Your task to perform on an android device: turn notification dots on Image 0: 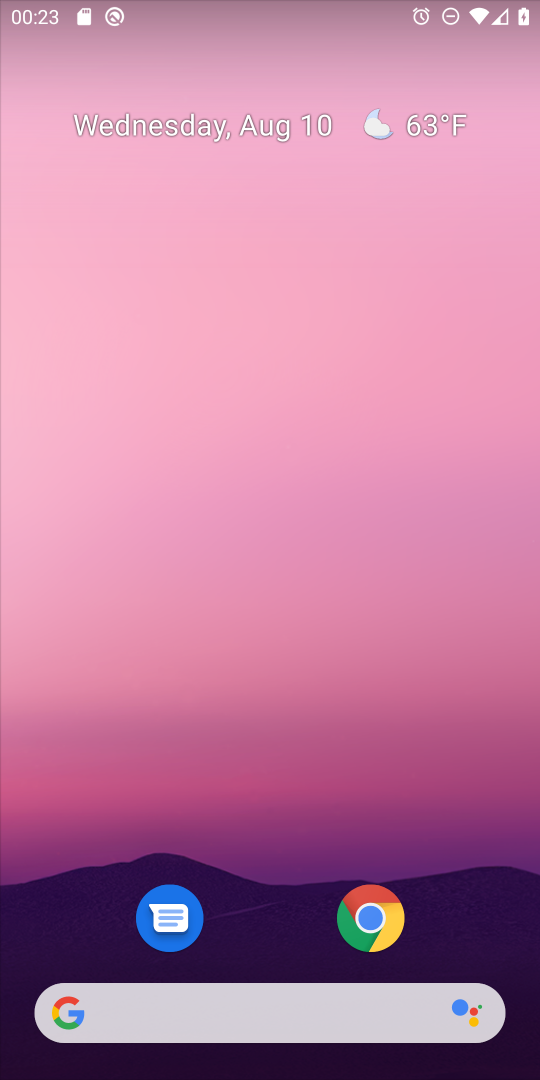
Step 0: drag from (268, 891) to (305, 135)
Your task to perform on an android device: turn notification dots on Image 1: 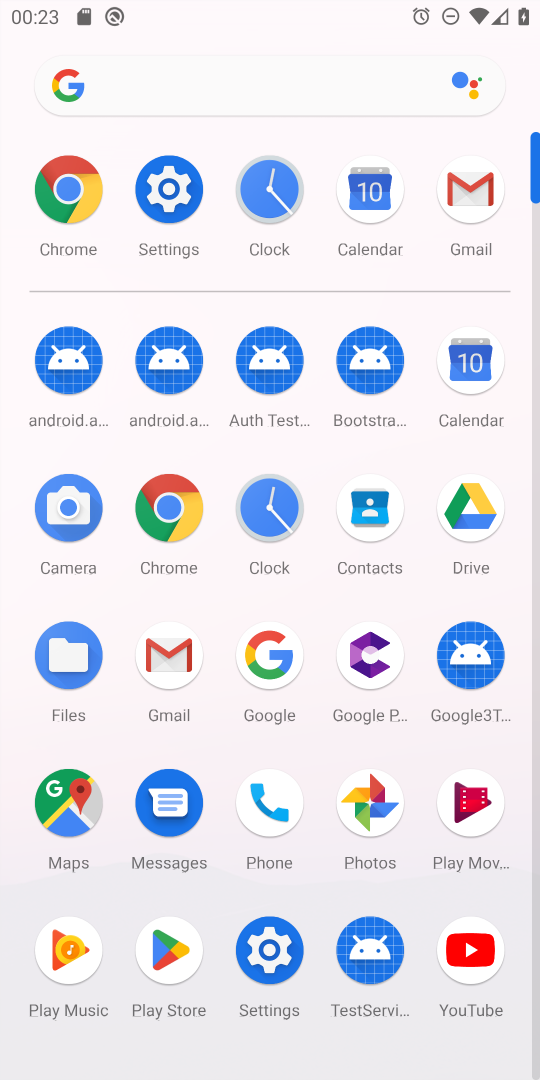
Step 1: click (257, 960)
Your task to perform on an android device: turn notification dots on Image 2: 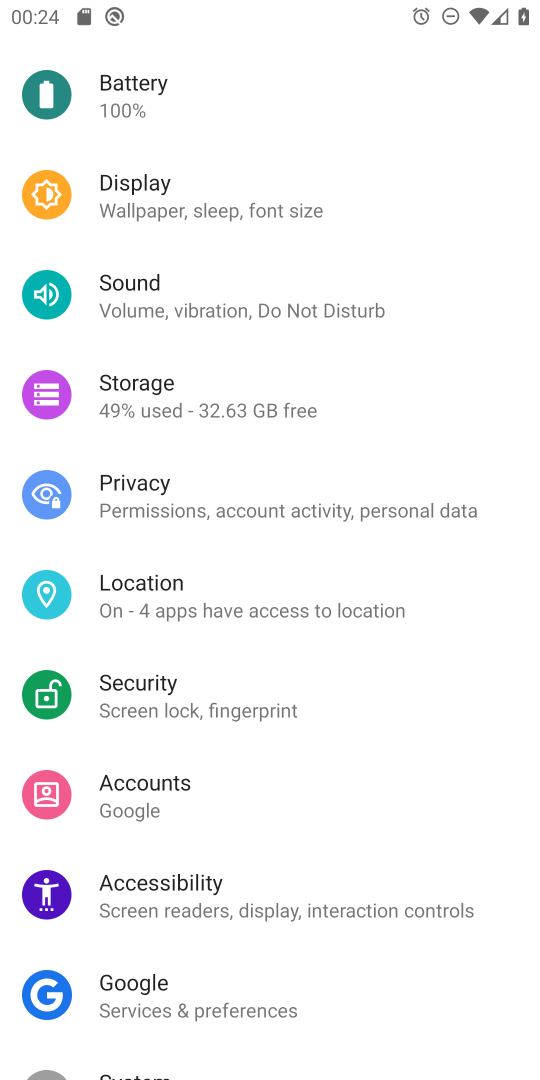
Step 2: drag from (263, 206) to (175, 759)
Your task to perform on an android device: turn notification dots on Image 3: 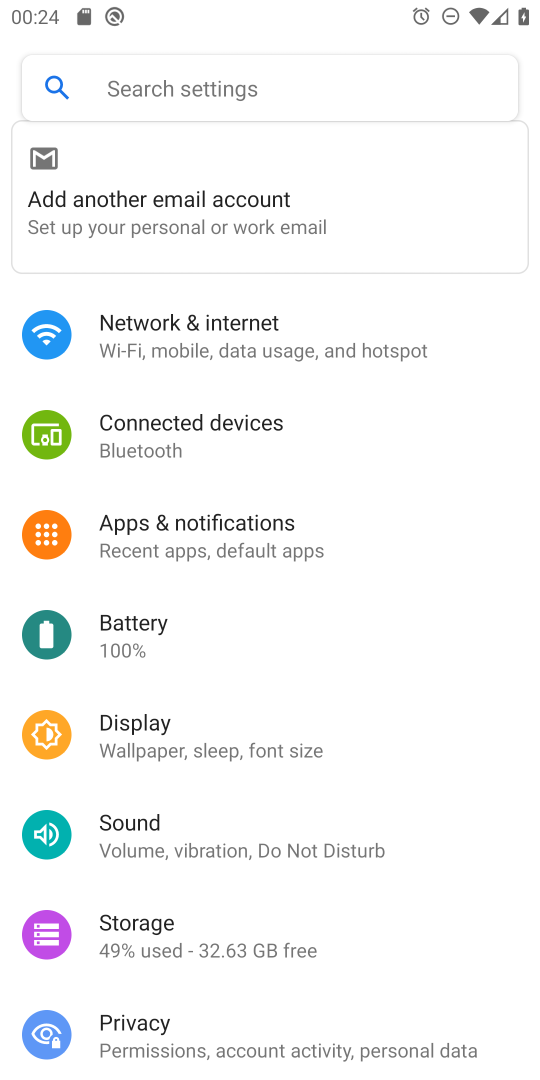
Step 3: click (195, 526)
Your task to perform on an android device: turn notification dots on Image 4: 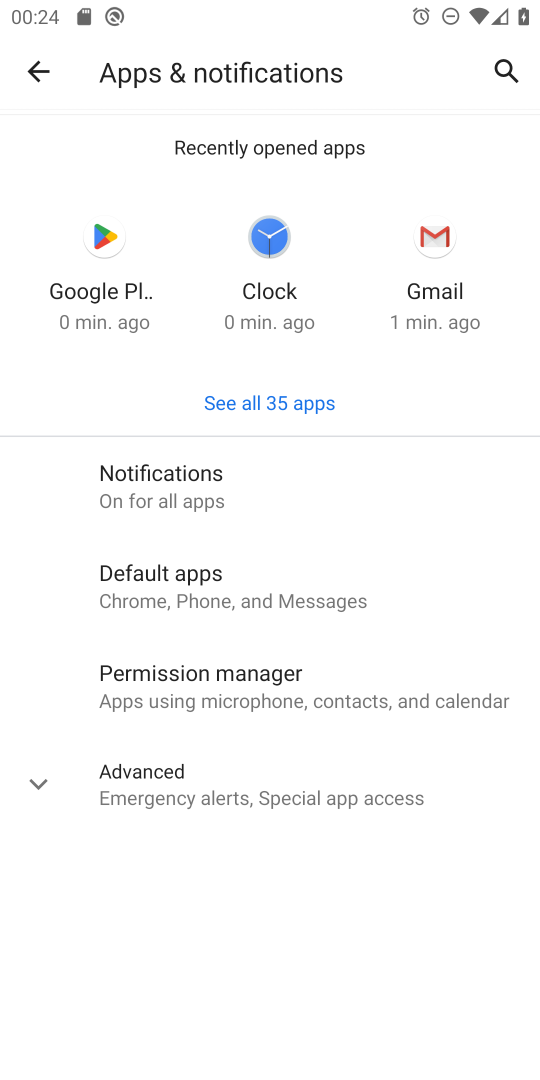
Step 4: click (139, 505)
Your task to perform on an android device: turn notification dots on Image 5: 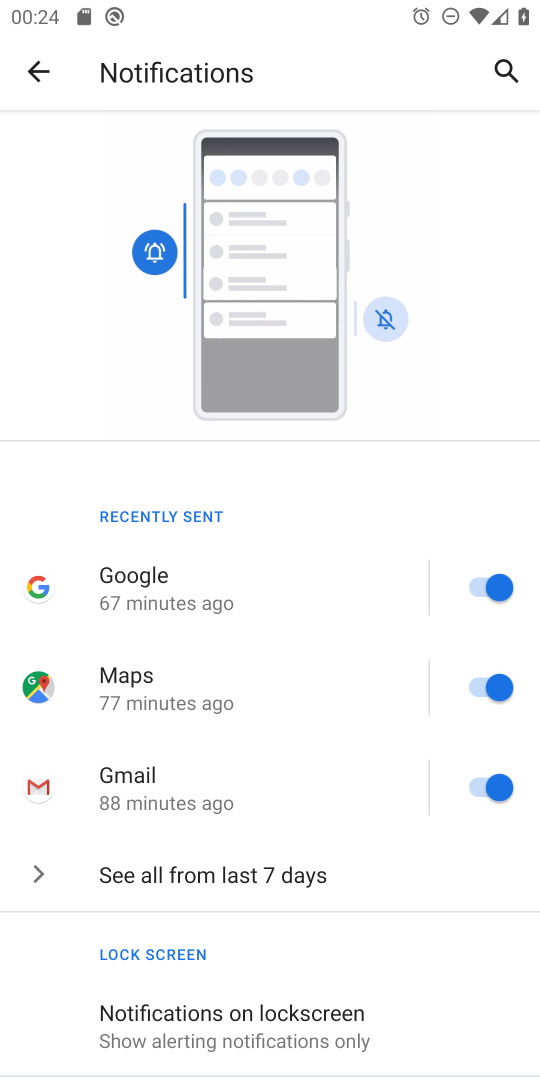
Step 5: drag from (277, 811) to (379, 154)
Your task to perform on an android device: turn notification dots on Image 6: 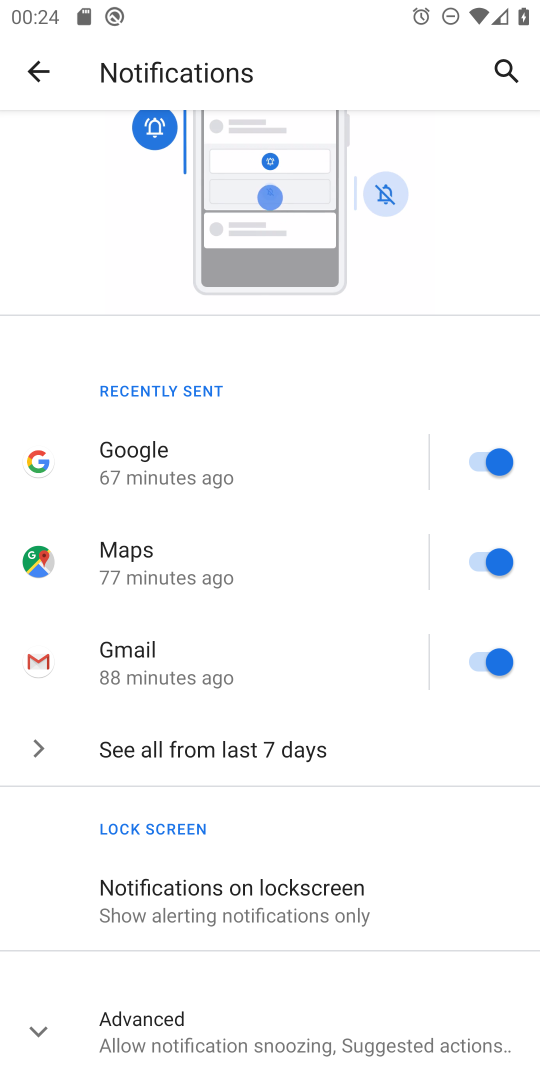
Step 6: click (180, 1055)
Your task to perform on an android device: turn notification dots on Image 7: 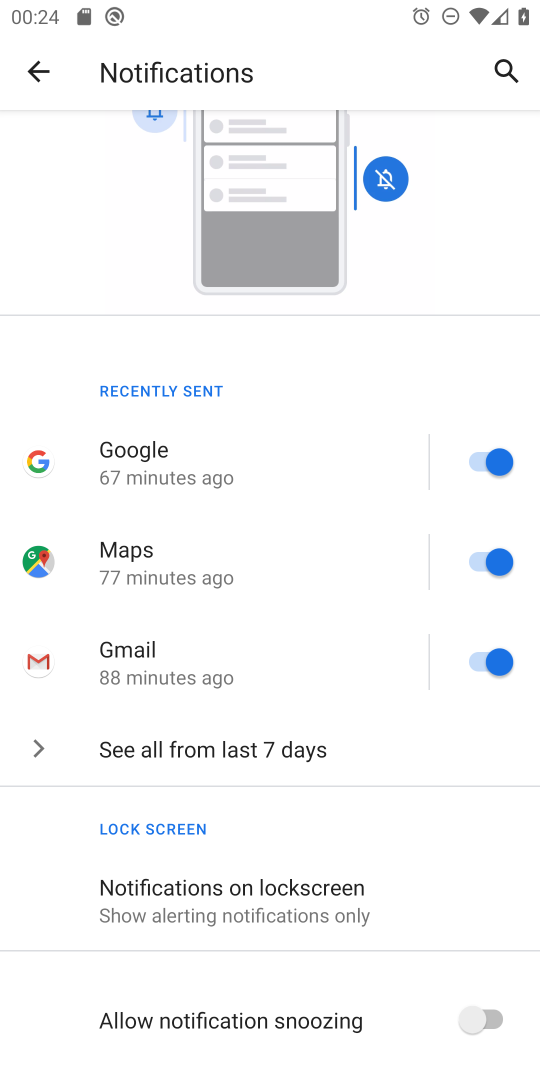
Step 7: task complete